Your task to perform on an android device: Go to Yahoo.com Image 0: 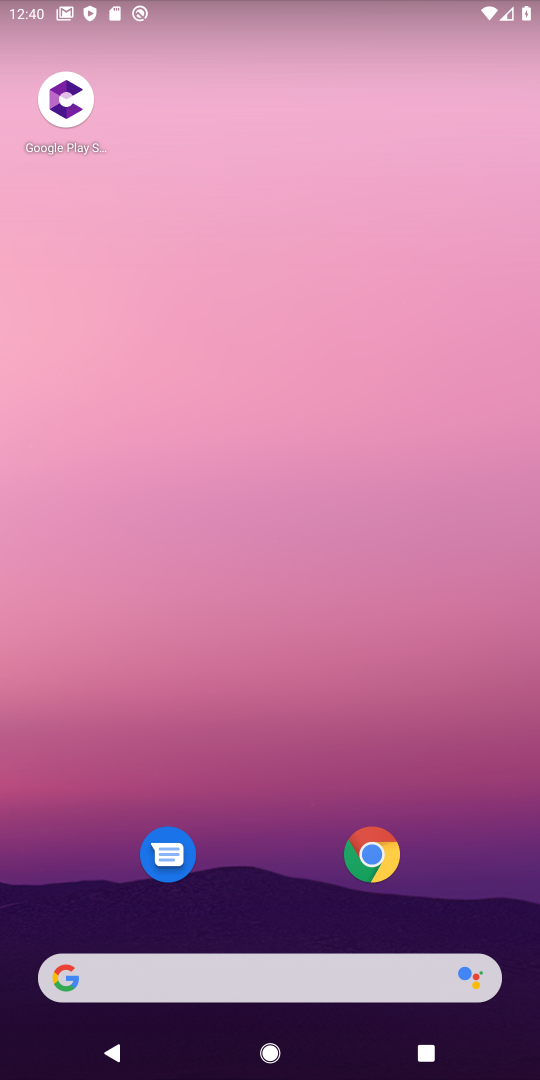
Step 0: click (333, 973)
Your task to perform on an android device: Go to Yahoo.com Image 1: 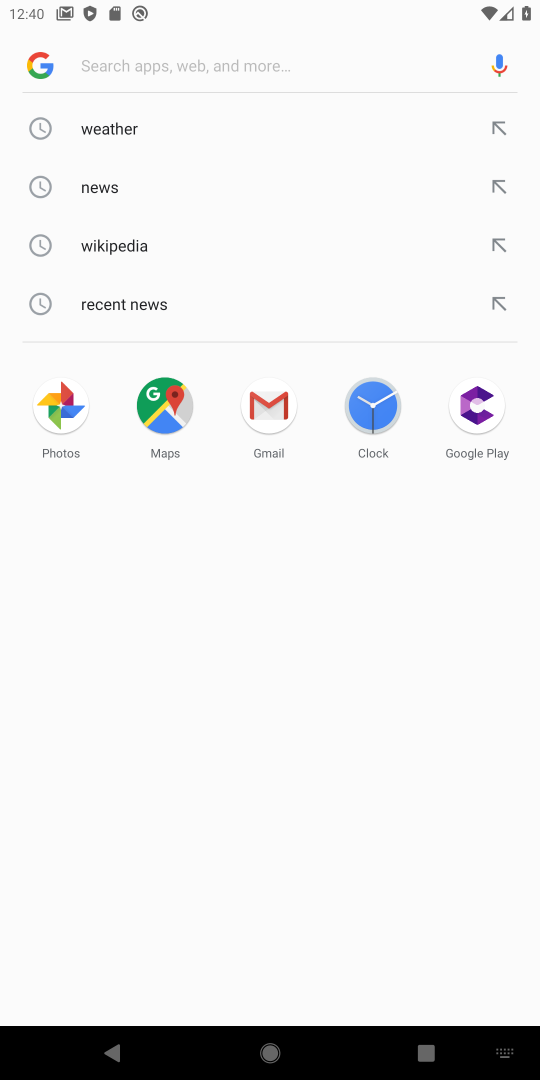
Step 1: type " Yahoo.com"
Your task to perform on an android device: Go to Yahoo.com Image 2: 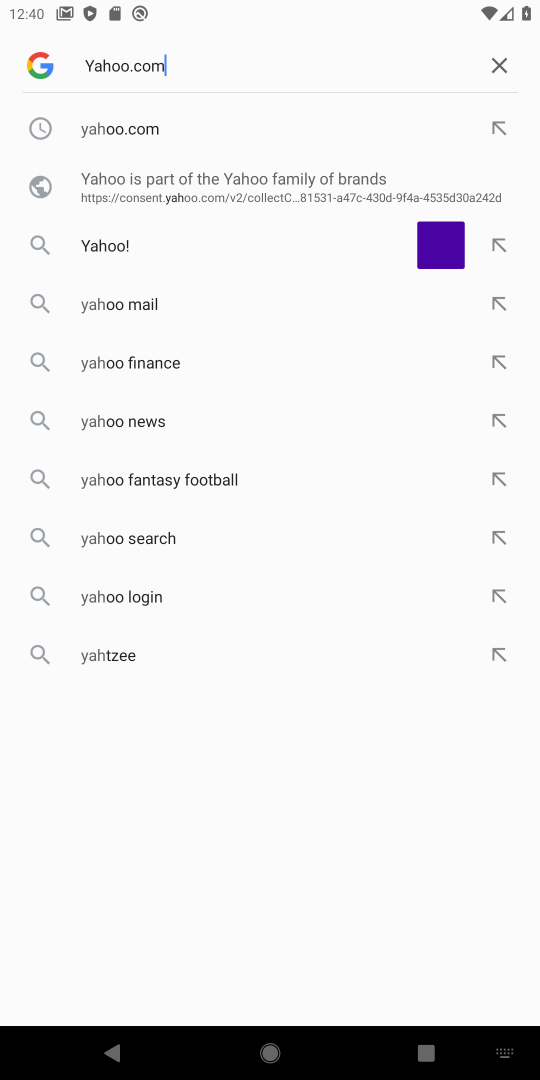
Step 2: press enter
Your task to perform on an android device: Go to Yahoo.com Image 3: 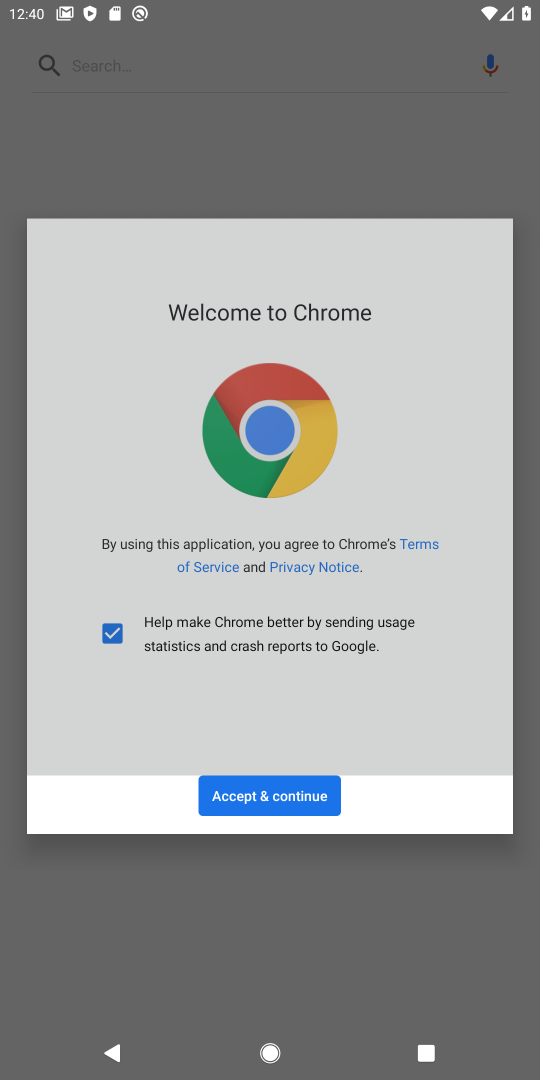
Step 3: click (244, 799)
Your task to perform on an android device: Go to Yahoo.com Image 4: 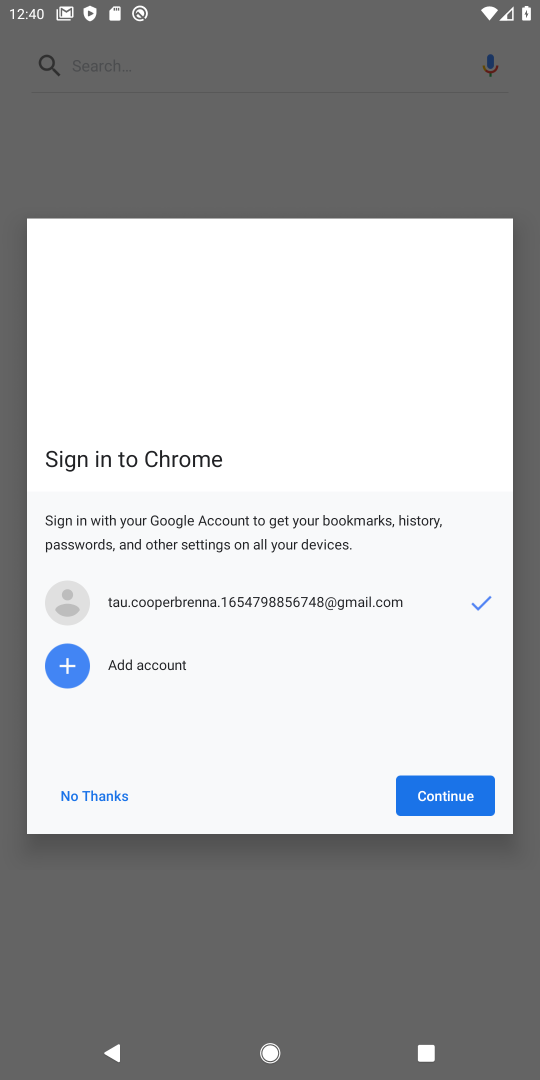
Step 4: click (464, 785)
Your task to perform on an android device: Go to Yahoo.com Image 5: 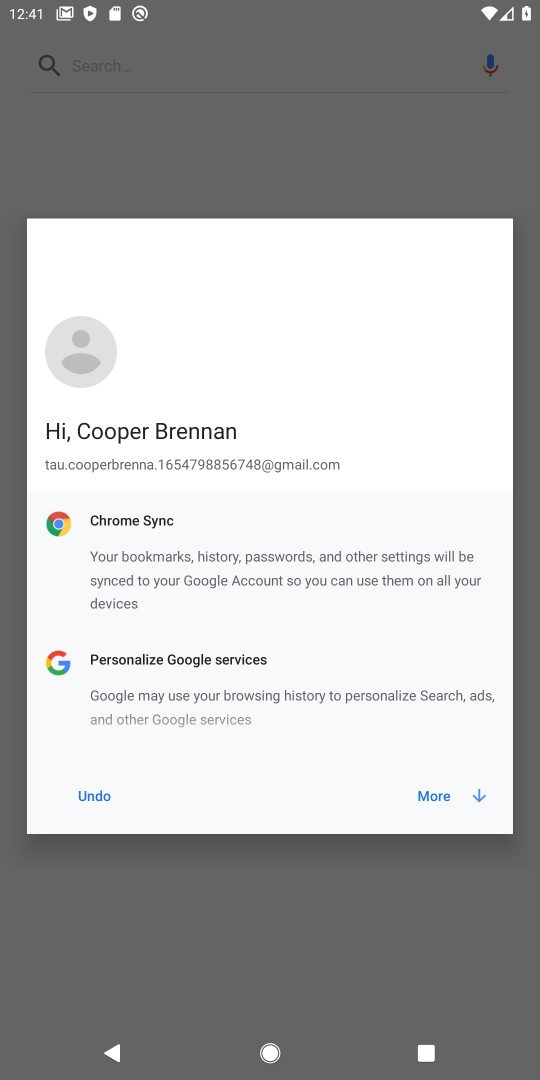
Step 5: click (456, 790)
Your task to perform on an android device: Go to Yahoo.com Image 6: 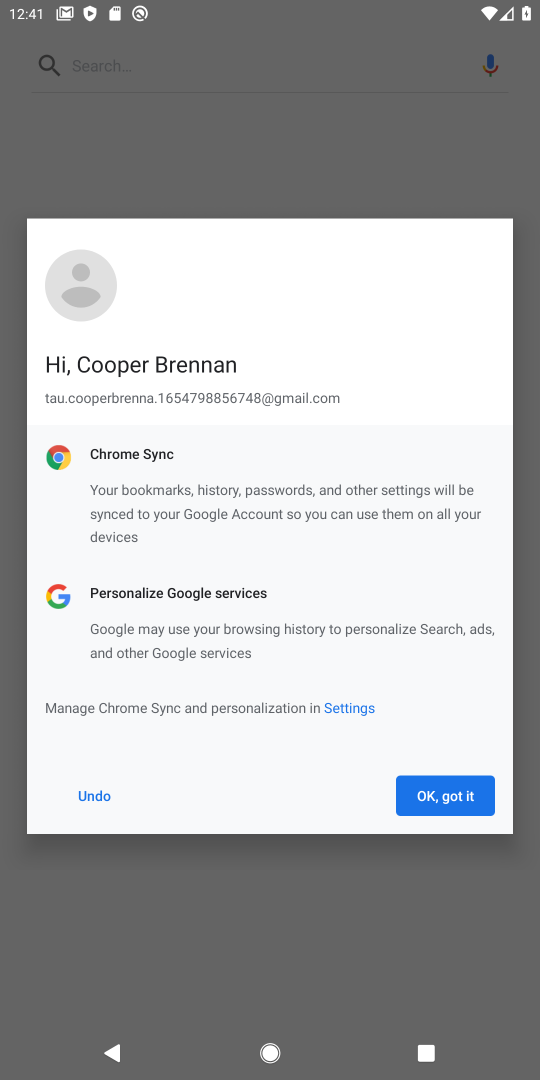
Step 6: click (467, 801)
Your task to perform on an android device: Go to Yahoo.com Image 7: 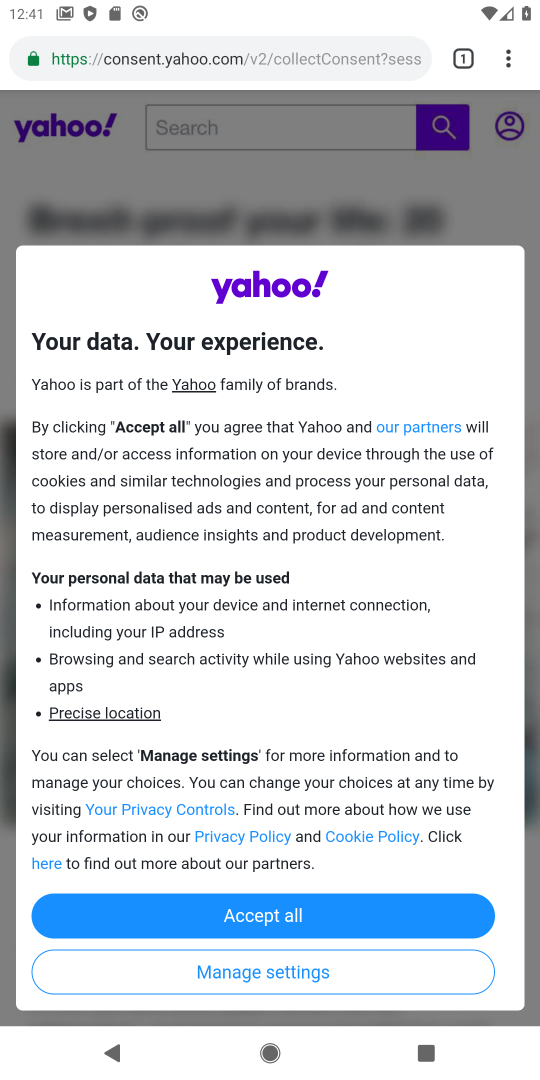
Step 7: click (377, 917)
Your task to perform on an android device: Go to Yahoo.com Image 8: 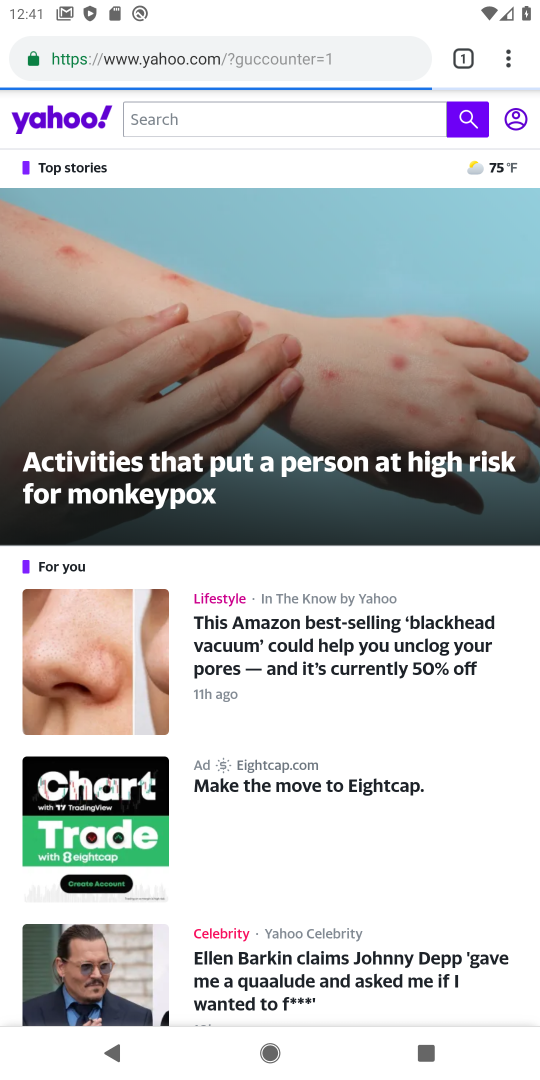
Step 8: task complete